Your task to perform on an android device: delete location history Image 0: 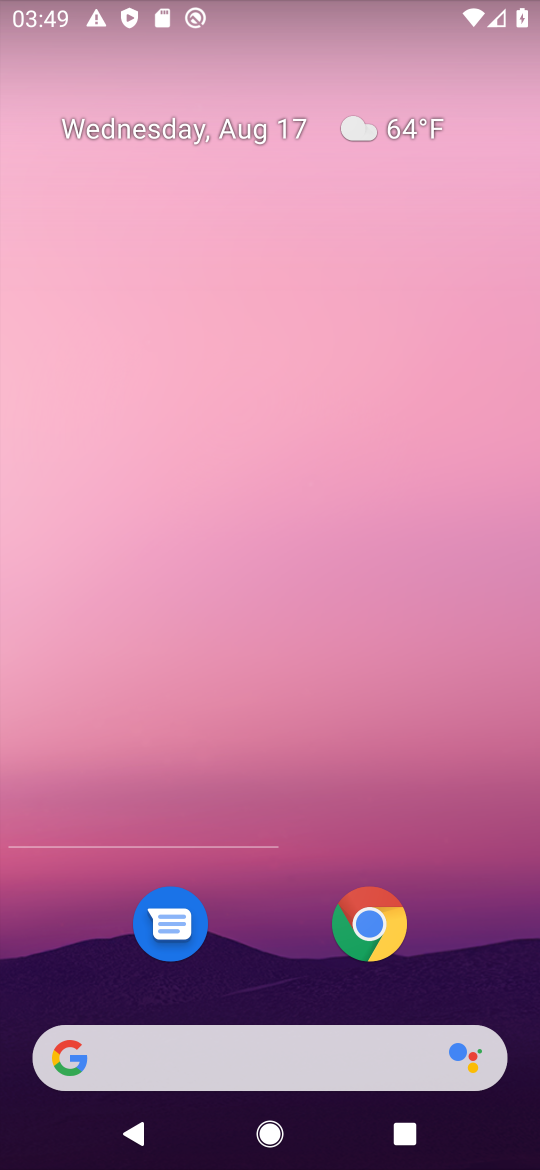
Step 0: press home button
Your task to perform on an android device: delete location history Image 1: 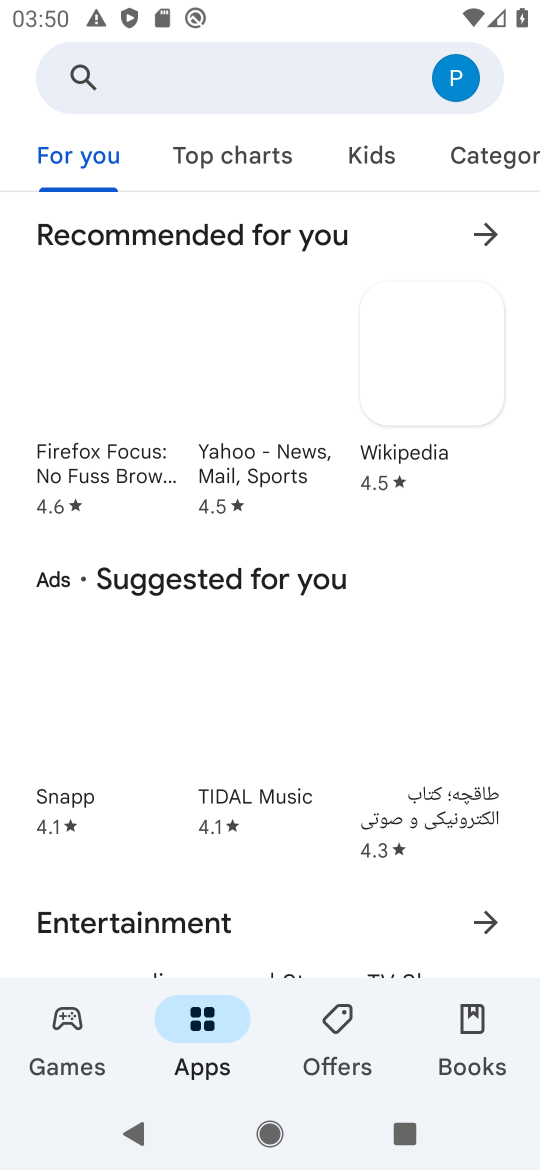
Step 1: click (200, 185)
Your task to perform on an android device: delete location history Image 2: 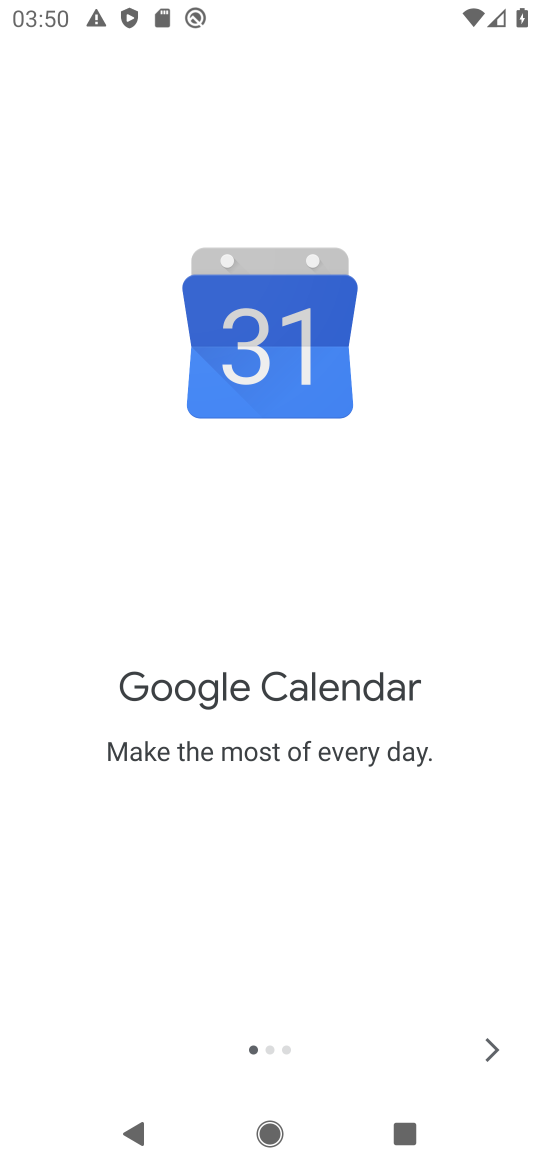
Step 2: click (487, 1064)
Your task to perform on an android device: delete location history Image 3: 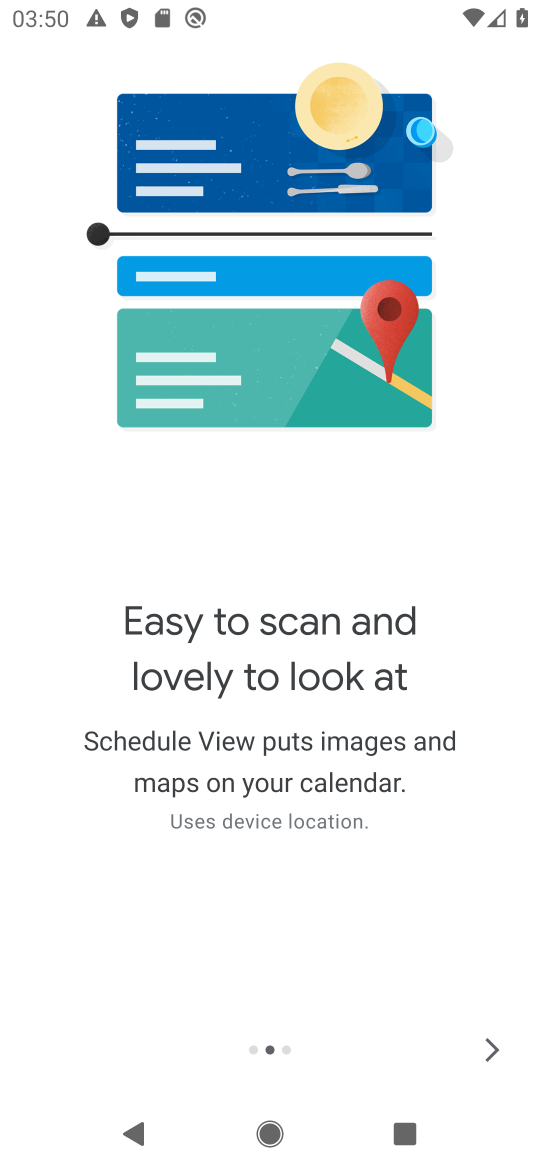
Step 3: press home button
Your task to perform on an android device: delete location history Image 4: 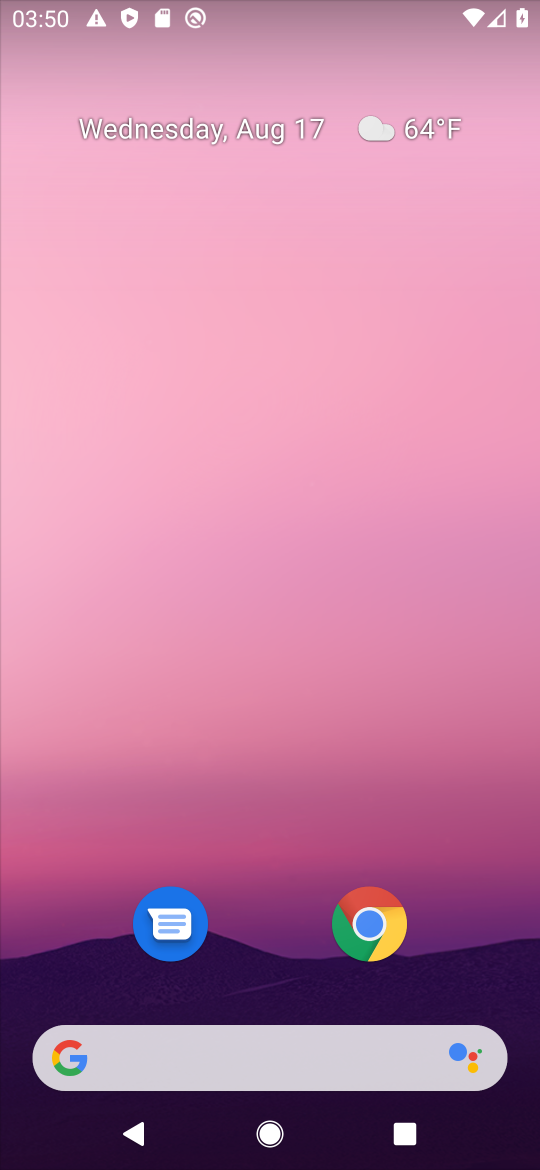
Step 4: drag from (261, 968) to (216, 75)
Your task to perform on an android device: delete location history Image 5: 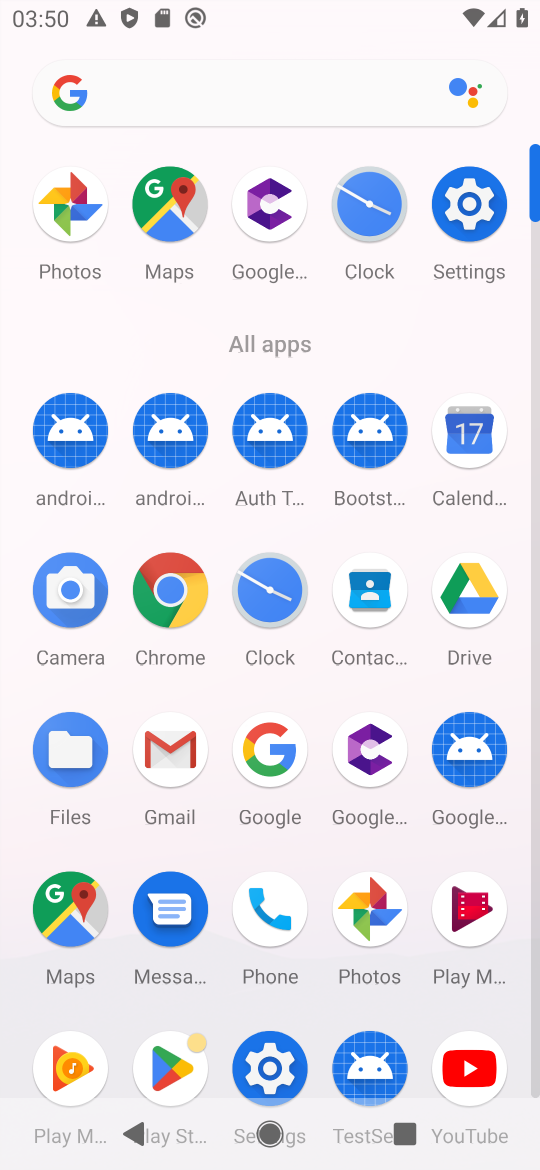
Step 5: click (51, 944)
Your task to perform on an android device: delete location history Image 6: 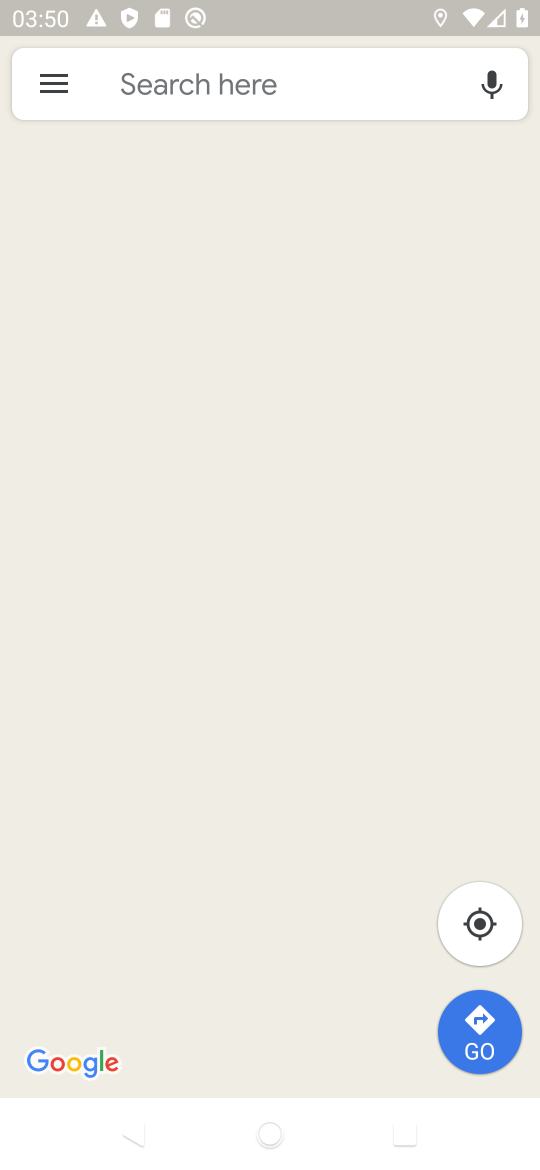
Step 6: click (39, 83)
Your task to perform on an android device: delete location history Image 7: 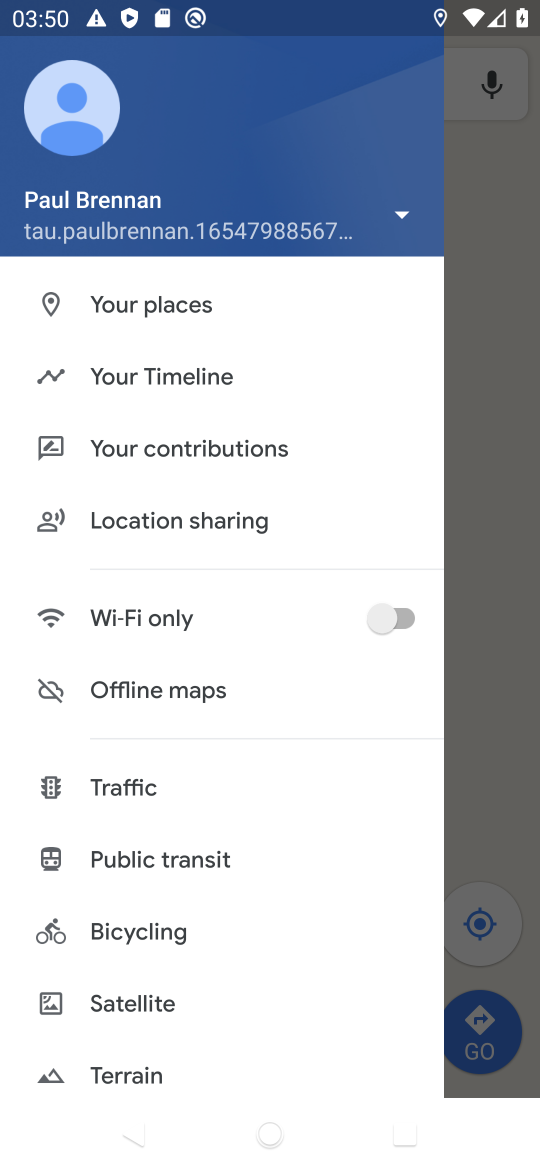
Step 7: click (156, 385)
Your task to perform on an android device: delete location history Image 8: 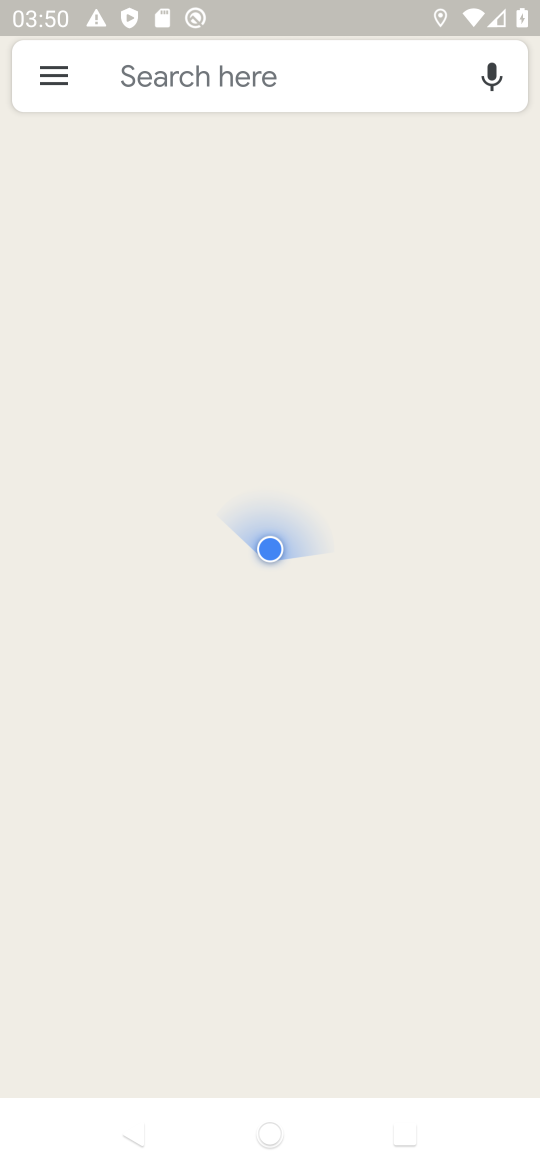
Step 8: click (156, 385)
Your task to perform on an android device: delete location history Image 9: 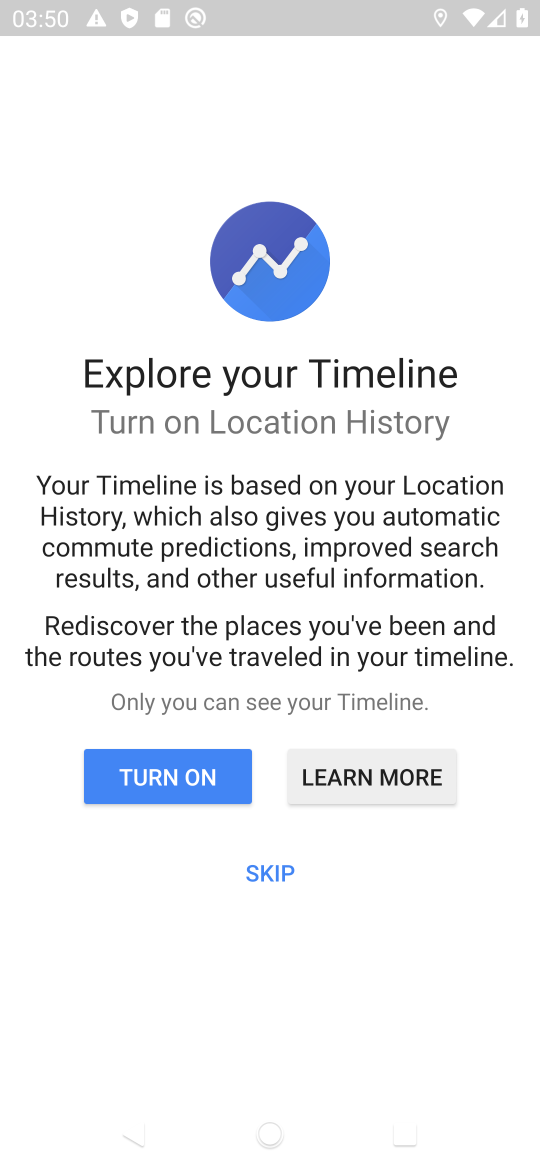
Step 9: click (286, 862)
Your task to perform on an android device: delete location history Image 10: 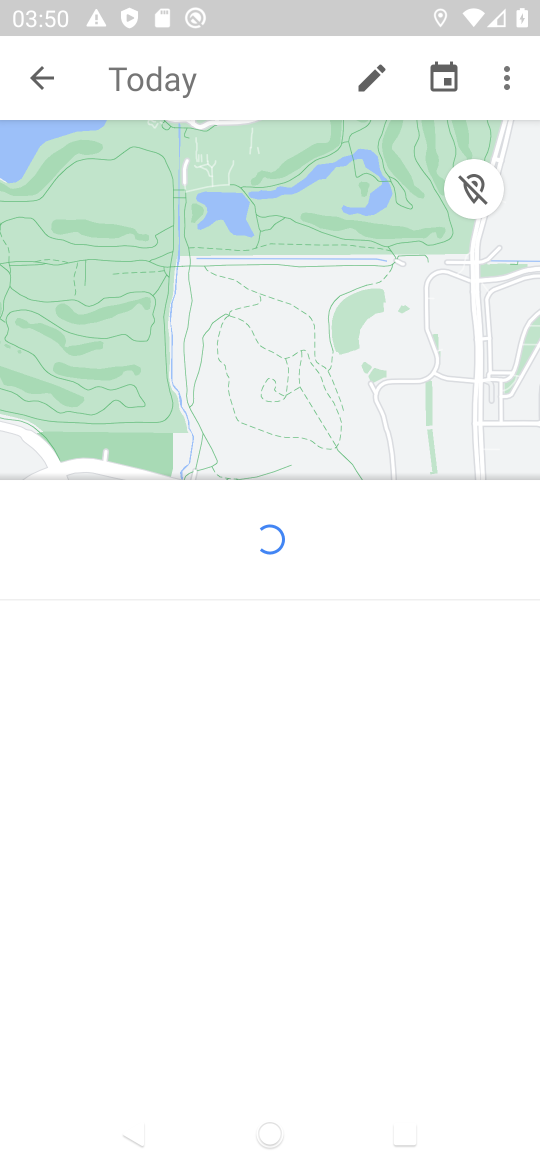
Step 10: click (502, 67)
Your task to perform on an android device: delete location history Image 11: 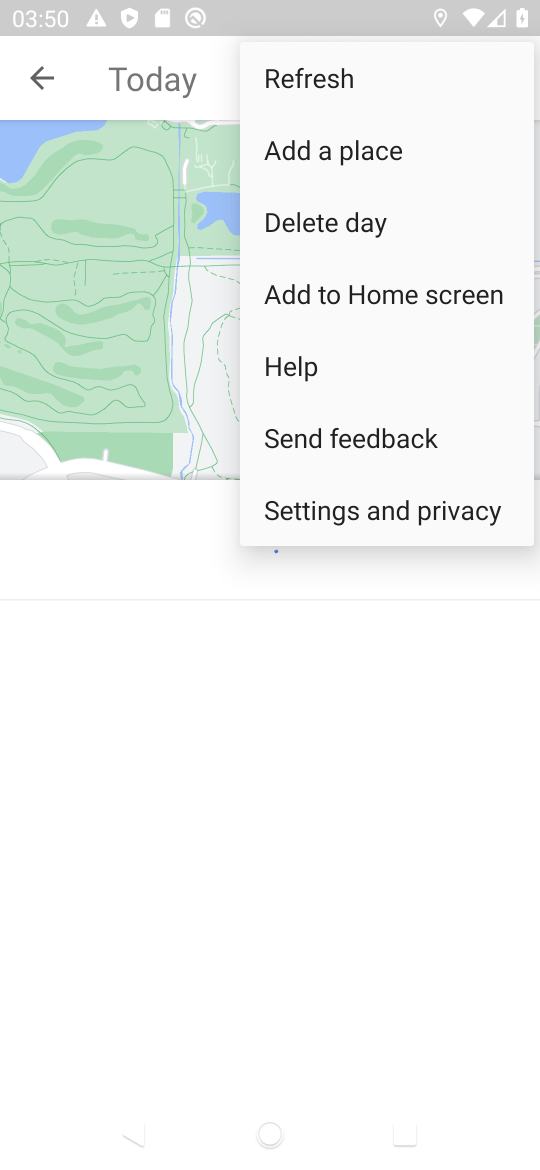
Step 11: click (387, 509)
Your task to perform on an android device: delete location history Image 12: 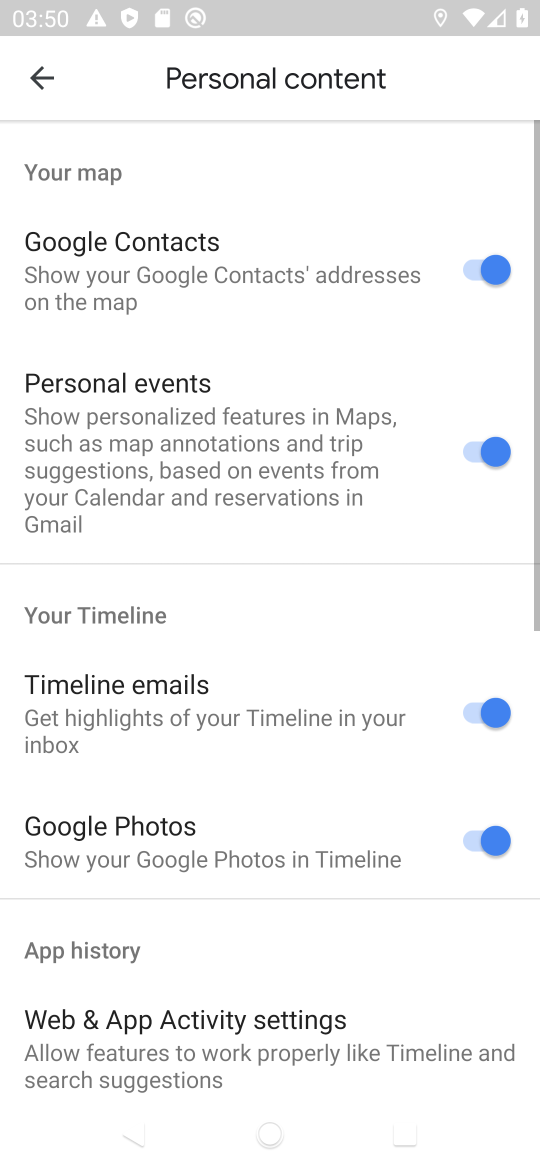
Step 12: drag from (298, 863) to (275, 147)
Your task to perform on an android device: delete location history Image 13: 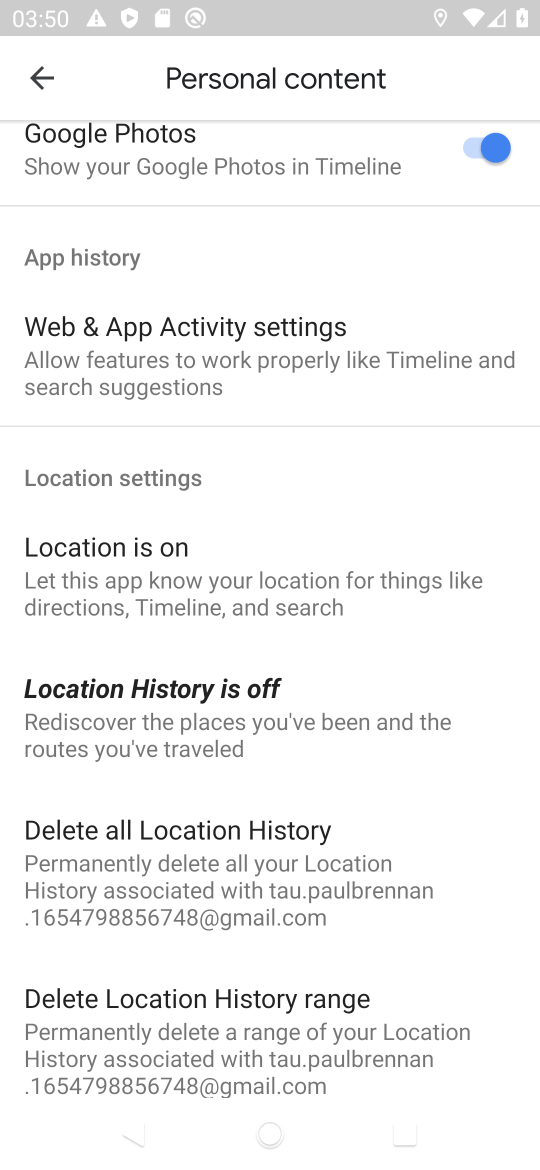
Step 13: drag from (185, 1042) to (163, 289)
Your task to perform on an android device: delete location history Image 14: 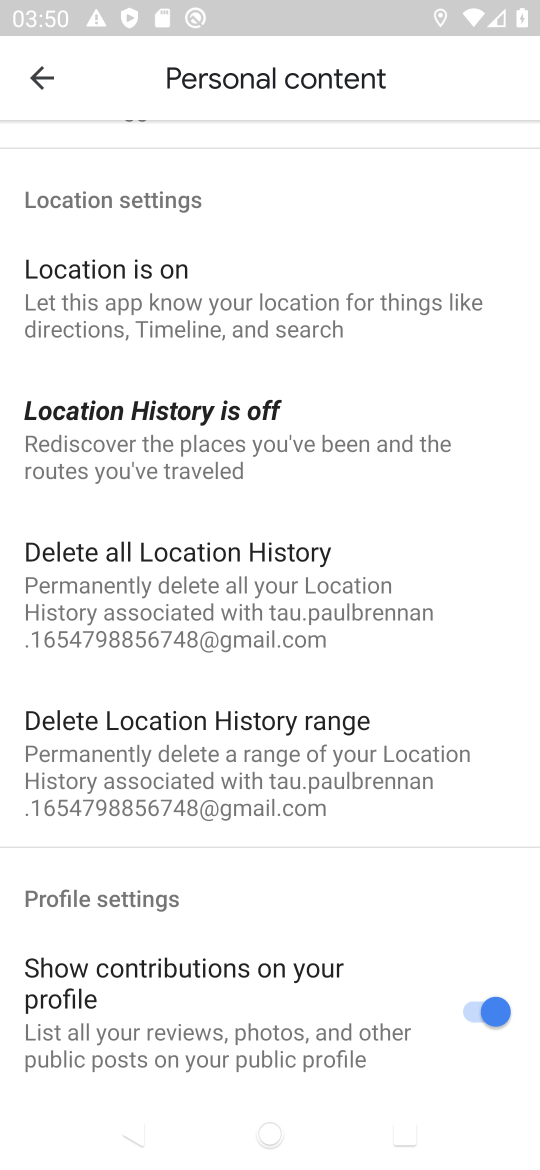
Step 14: click (155, 582)
Your task to perform on an android device: delete location history Image 15: 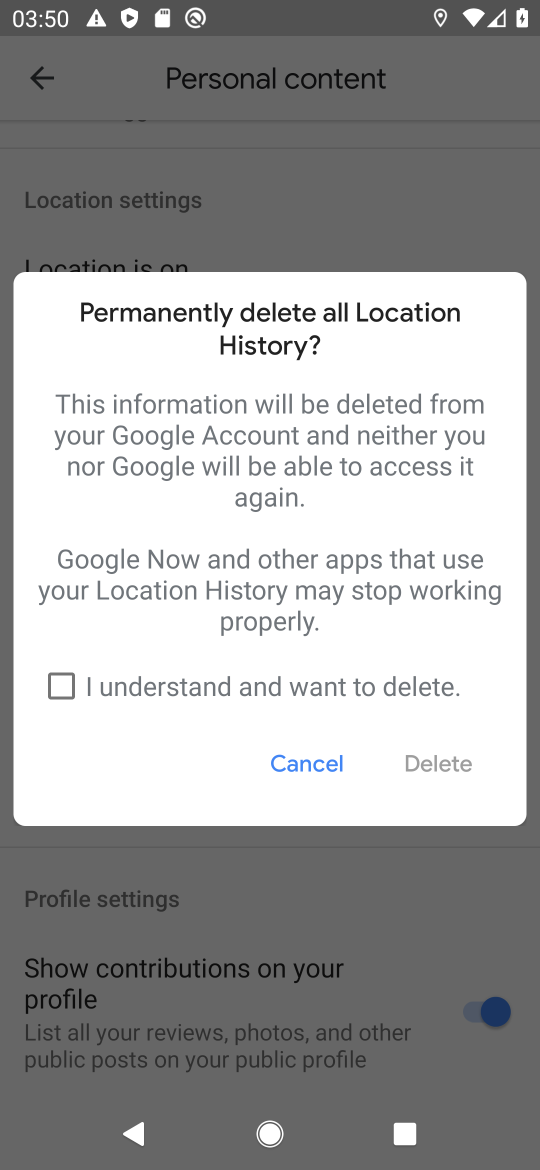
Step 15: click (49, 683)
Your task to perform on an android device: delete location history Image 16: 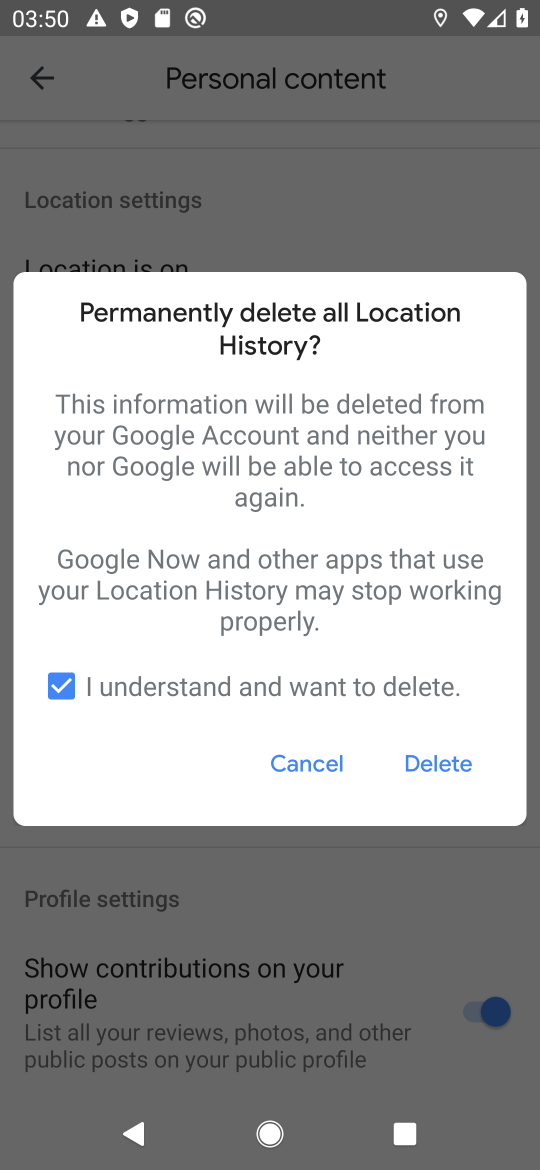
Step 16: click (446, 780)
Your task to perform on an android device: delete location history Image 17: 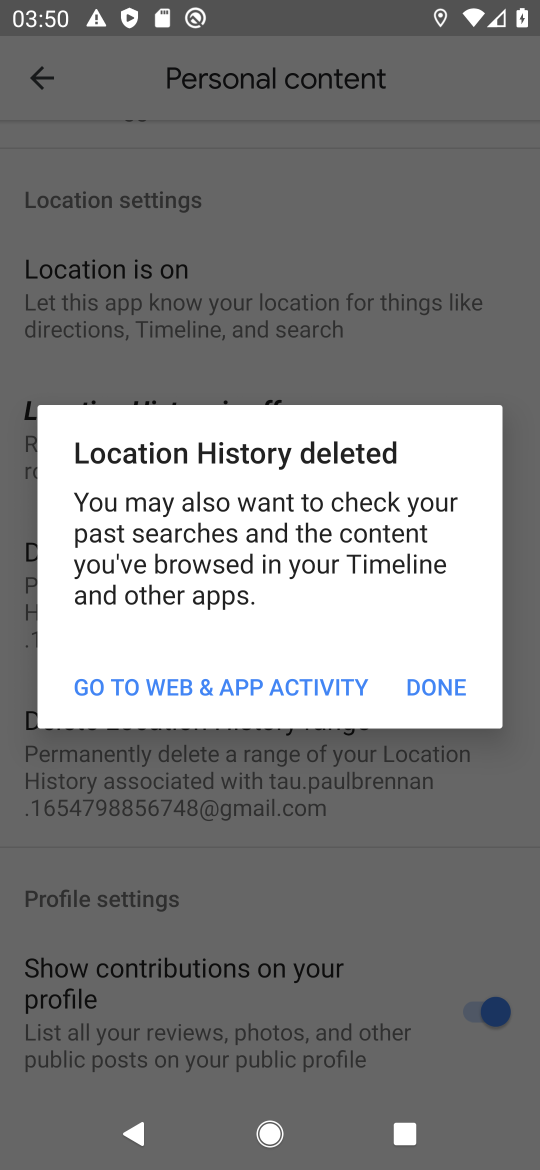
Step 17: task complete